Your task to perform on an android device: Go to ESPN.com Image 0: 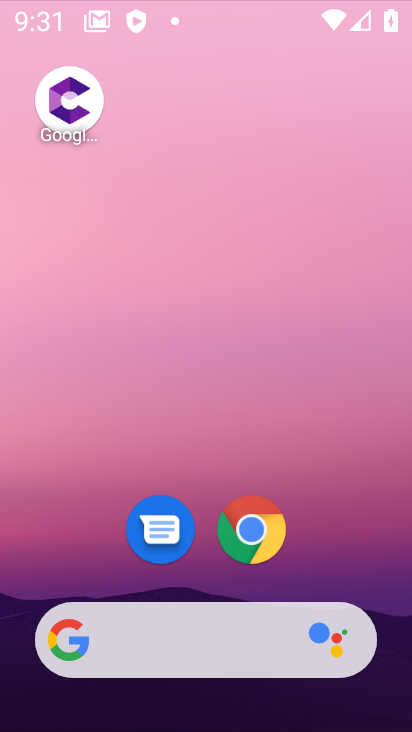
Step 0: click (190, 187)
Your task to perform on an android device: Go to ESPN.com Image 1: 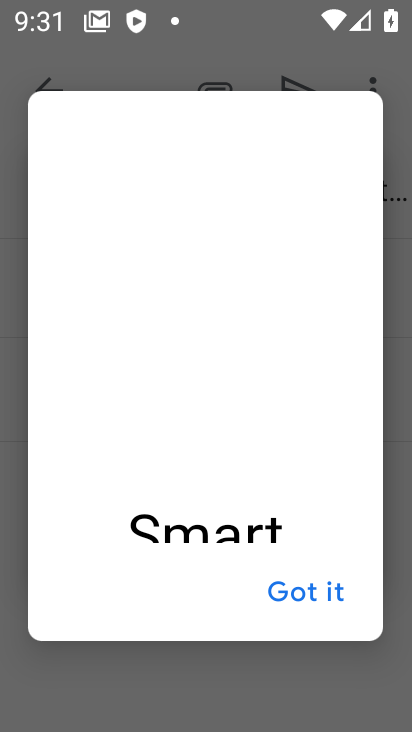
Step 1: press home button
Your task to perform on an android device: Go to ESPN.com Image 2: 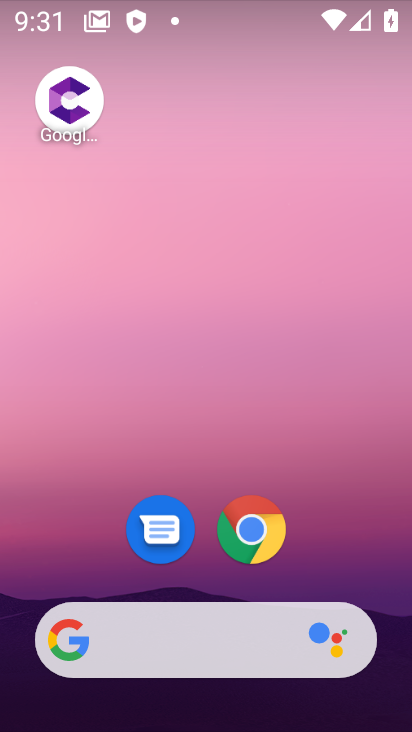
Step 2: drag from (350, 572) to (212, 16)
Your task to perform on an android device: Go to ESPN.com Image 3: 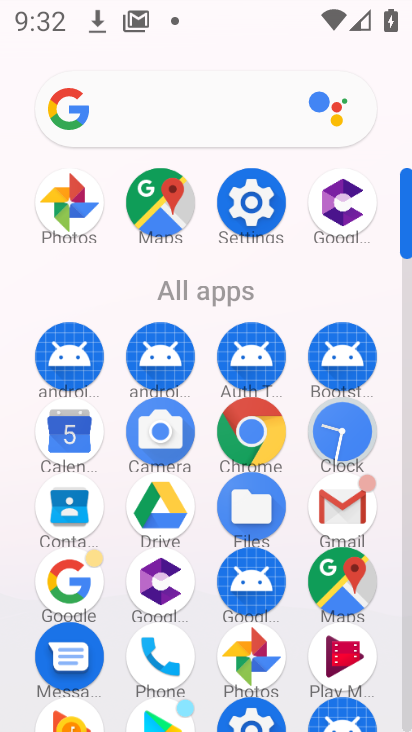
Step 3: click (248, 432)
Your task to perform on an android device: Go to ESPN.com Image 4: 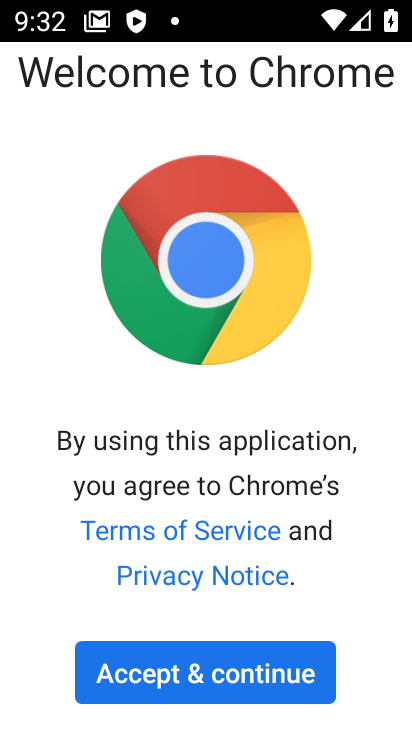
Step 4: click (230, 670)
Your task to perform on an android device: Go to ESPN.com Image 5: 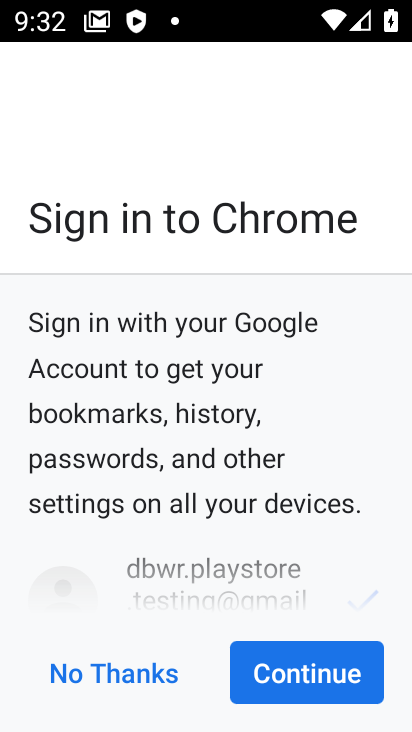
Step 5: click (294, 679)
Your task to perform on an android device: Go to ESPN.com Image 6: 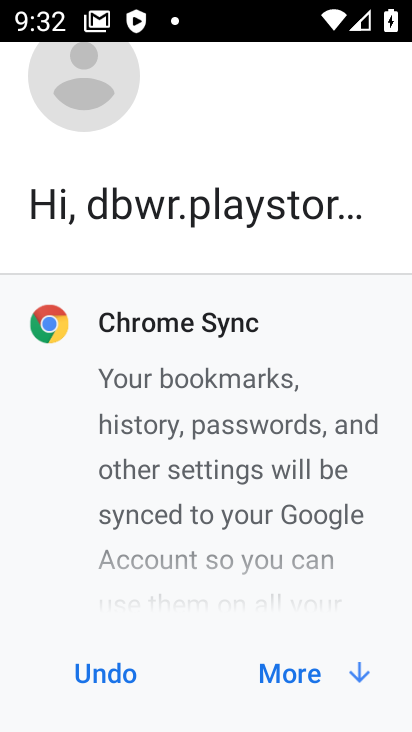
Step 6: click (296, 680)
Your task to perform on an android device: Go to ESPN.com Image 7: 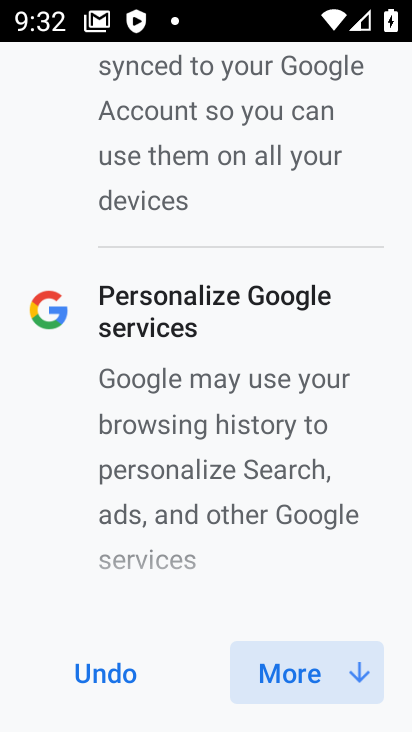
Step 7: click (296, 680)
Your task to perform on an android device: Go to ESPN.com Image 8: 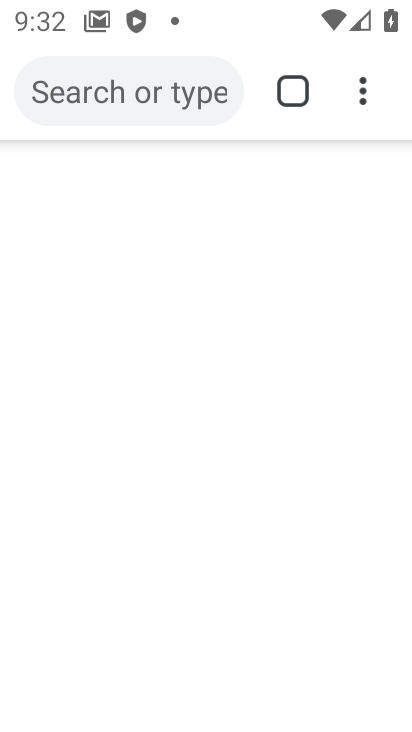
Step 8: click (297, 673)
Your task to perform on an android device: Go to ESPN.com Image 9: 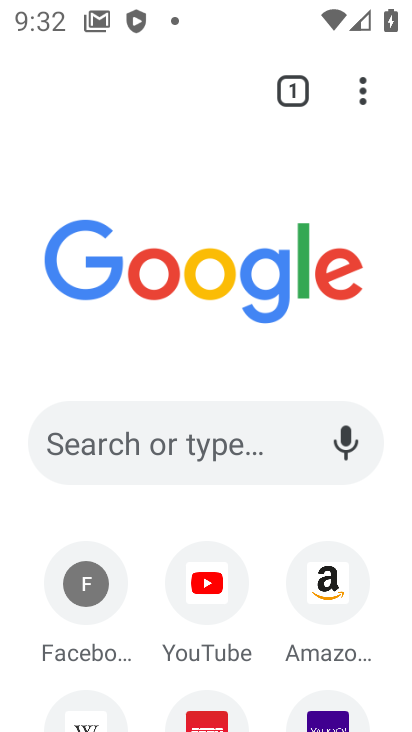
Step 9: drag from (241, 559) to (173, 293)
Your task to perform on an android device: Go to ESPN.com Image 10: 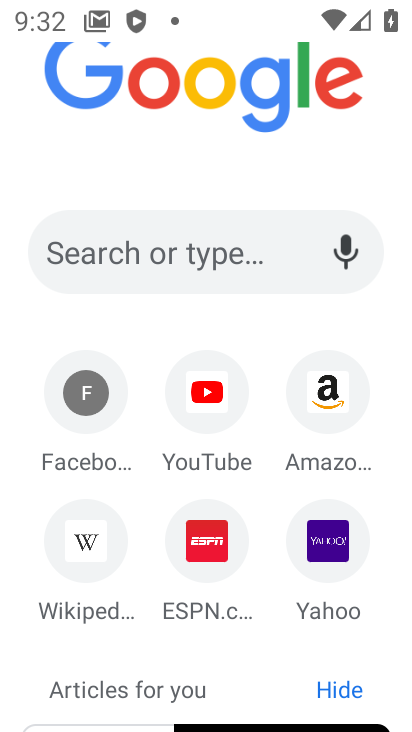
Step 10: click (218, 543)
Your task to perform on an android device: Go to ESPN.com Image 11: 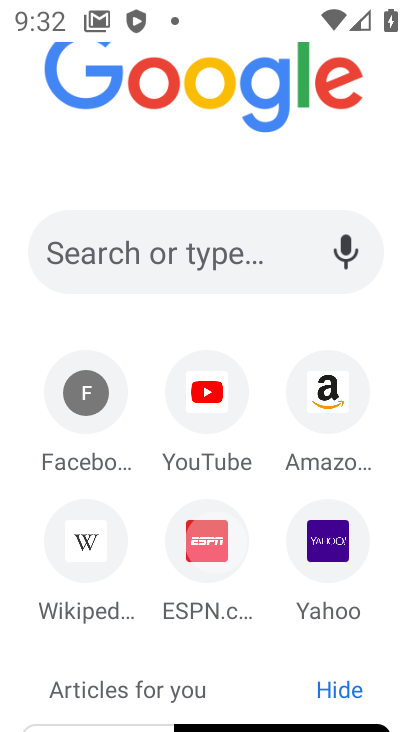
Step 11: click (218, 543)
Your task to perform on an android device: Go to ESPN.com Image 12: 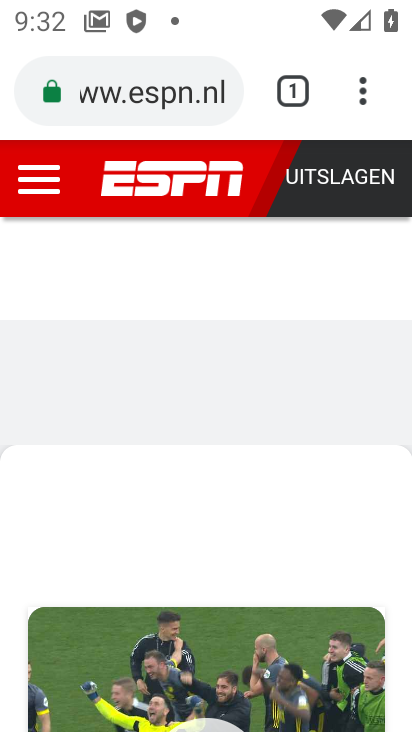
Step 12: task complete